Your task to perform on an android device: What's the weather today? Image 0: 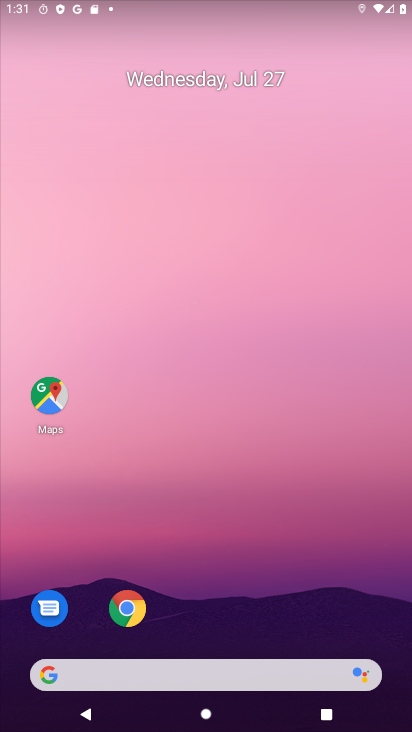
Step 0: click (46, 389)
Your task to perform on an android device: What's the weather today? Image 1: 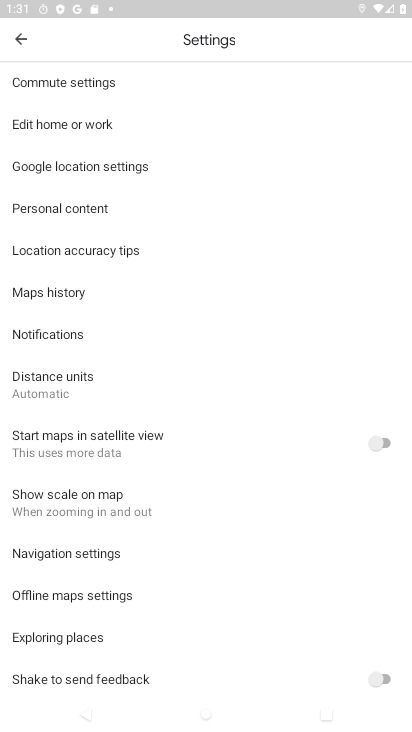
Step 1: click (16, 43)
Your task to perform on an android device: What's the weather today? Image 2: 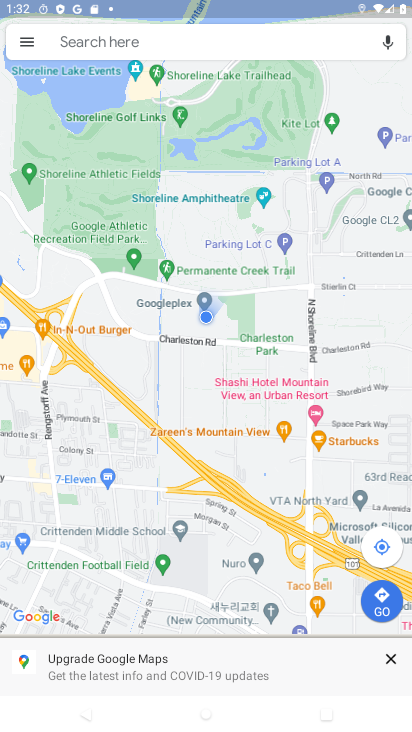
Step 2: press home button
Your task to perform on an android device: What's the weather today? Image 3: 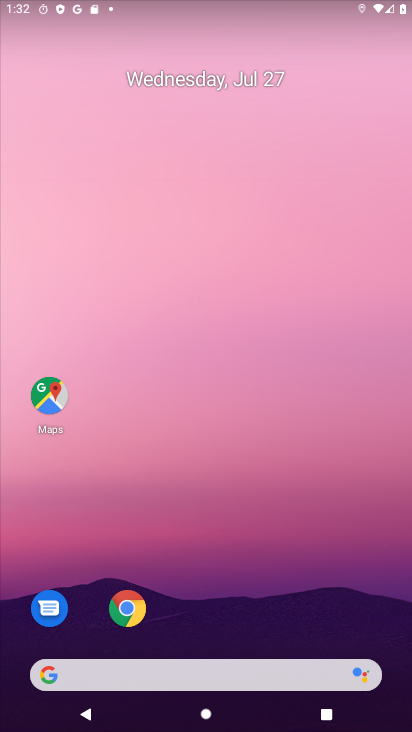
Step 3: click (158, 681)
Your task to perform on an android device: What's the weather today? Image 4: 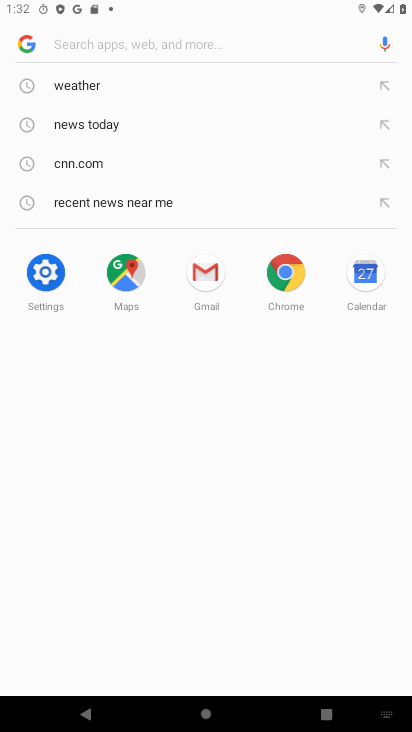
Step 4: click (75, 79)
Your task to perform on an android device: What's the weather today? Image 5: 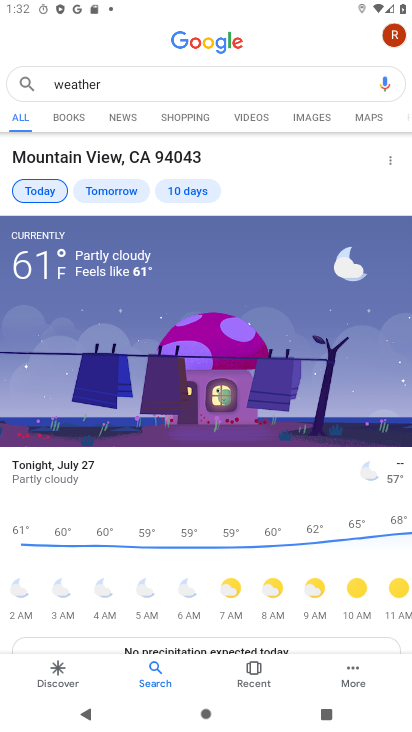
Step 5: task complete